Your task to perform on an android device: choose inbox layout in the gmail app Image 0: 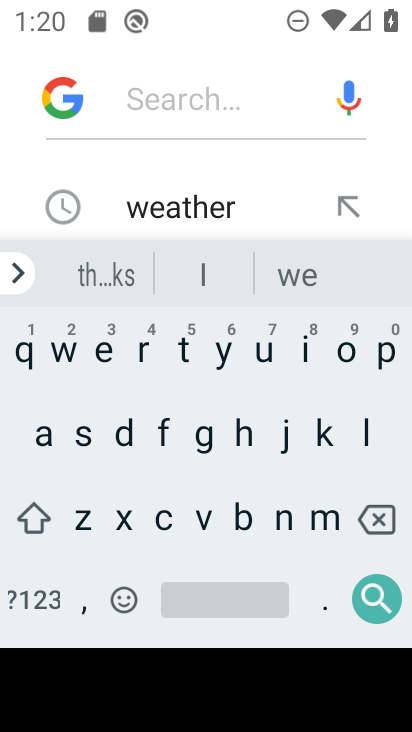
Step 0: press home button
Your task to perform on an android device: choose inbox layout in the gmail app Image 1: 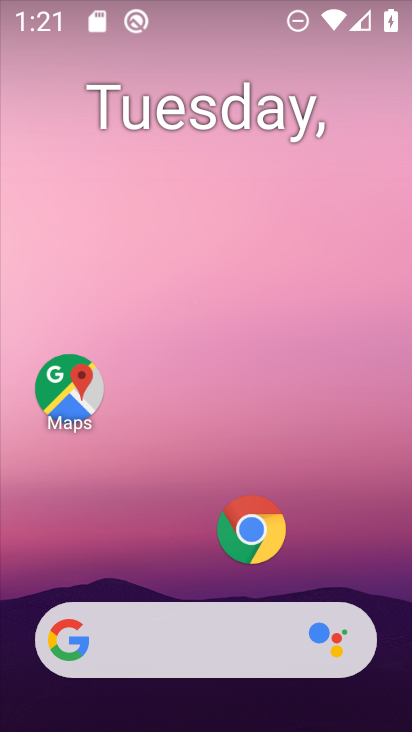
Step 1: drag from (188, 681) to (118, 0)
Your task to perform on an android device: choose inbox layout in the gmail app Image 2: 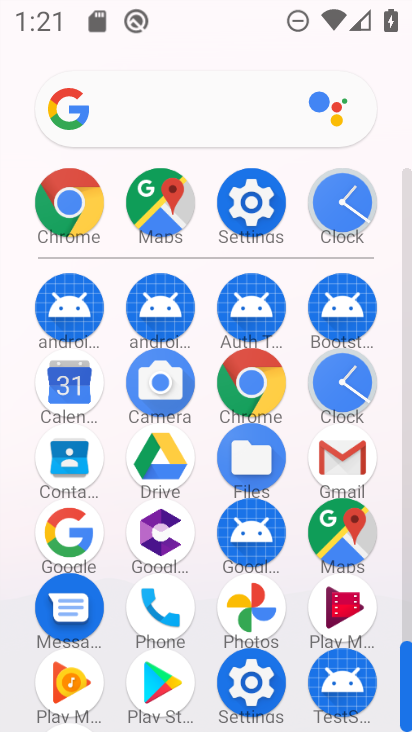
Step 2: click (326, 469)
Your task to perform on an android device: choose inbox layout in the gmail app Image 3: 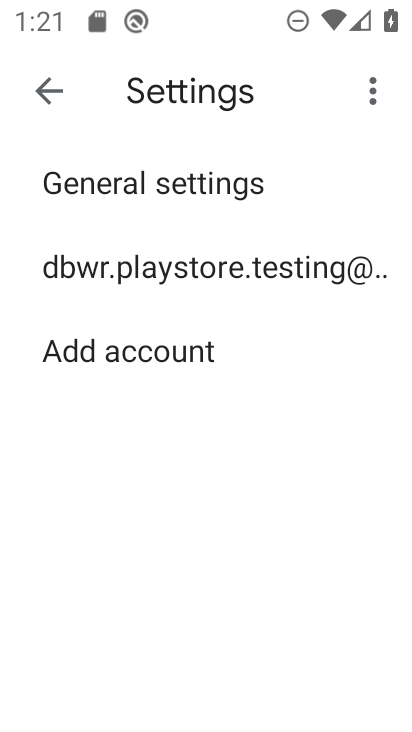
Step 3: click (254, 256)
Your task to perform on an android device: choose inbox layout in the gmail app Image 4: 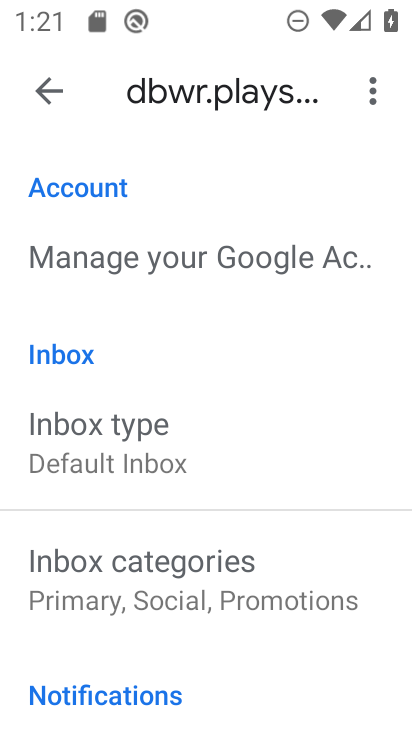
Step 4: task complete